Your task to perform on an android device: set default search engine in the chrome app Image 0: 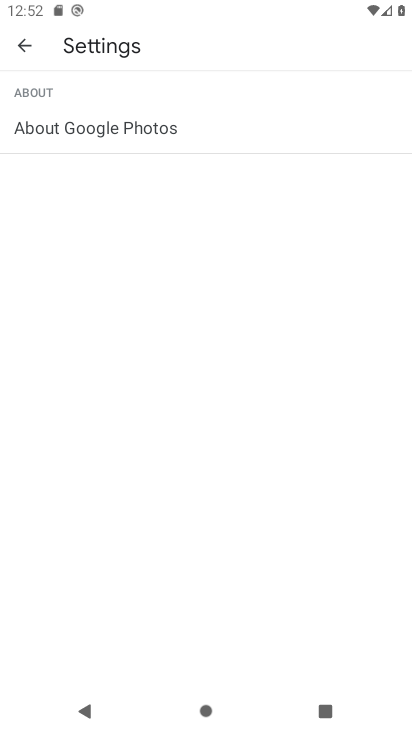
Step 0: click (233, 89)
Your task to perform on an android device: set default search engine in the chrome app Image 1: 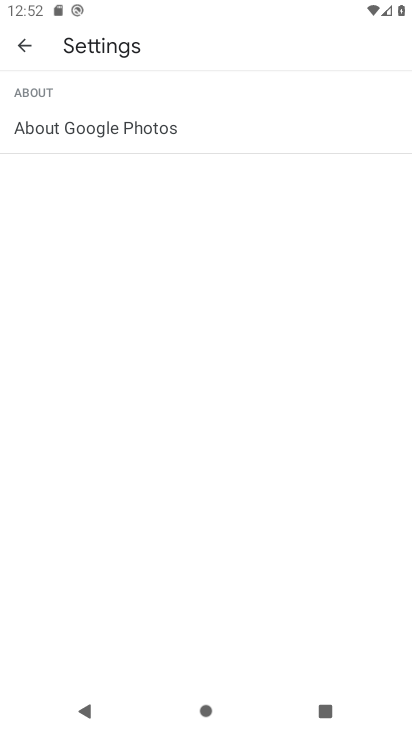
Step 1: press home button
Your task to perform on an android device: set default search engine in the chrome app Image 2: 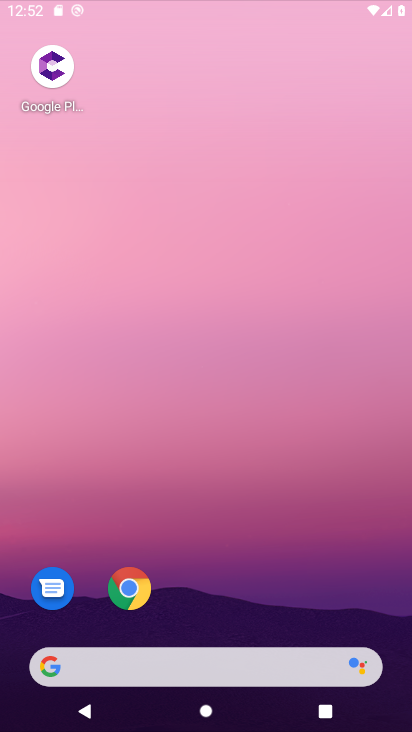
Step 2: drag from (213, 661) to (249, 122)
Your task to perform on an android device: set default search engine in the chrome app Image 3: 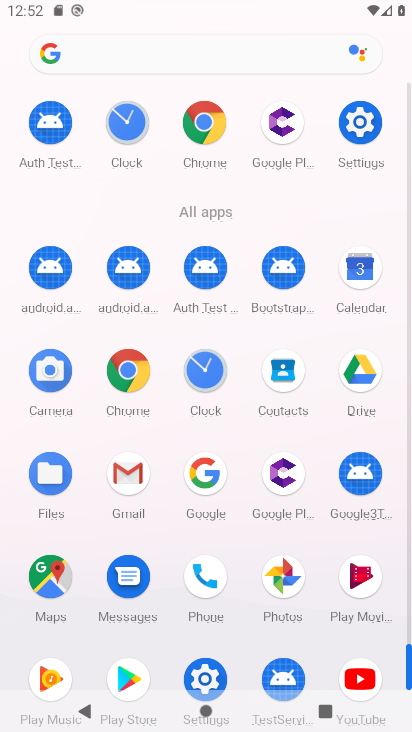
Step 3: click (143, 374)
Your task to perform on an android device: set default search engine in the chrome app Image 4: 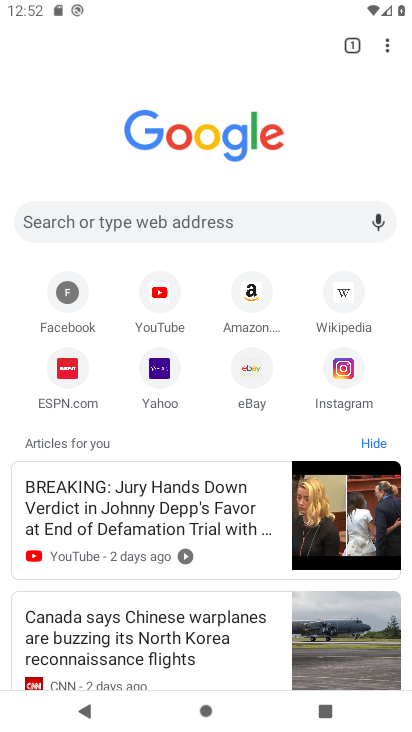
Step 4: click (396, 44)
Your task to perform on an android device: set default search engine in the chrome app Image 5: 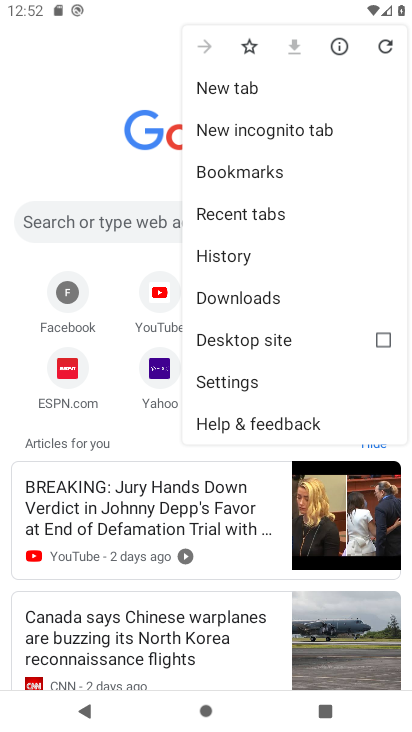
Step 5: click (258, 374)
Your task to perform on an android device: set default search engine in the chrome app Image 6: 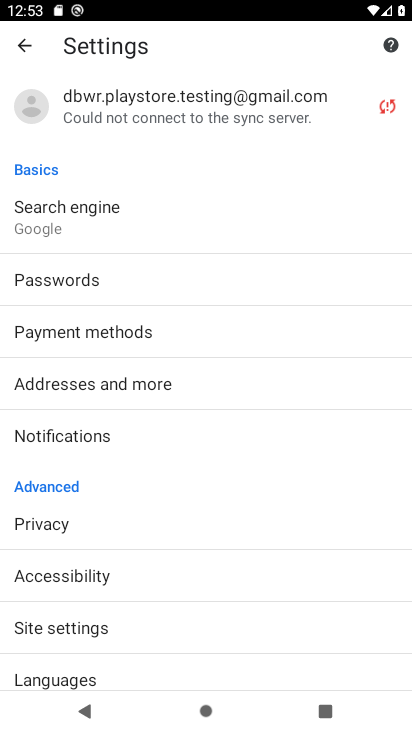
Step 6: click (73, 227)
Your task to perform on an android device: set default search engine in the chrome app Image 7: 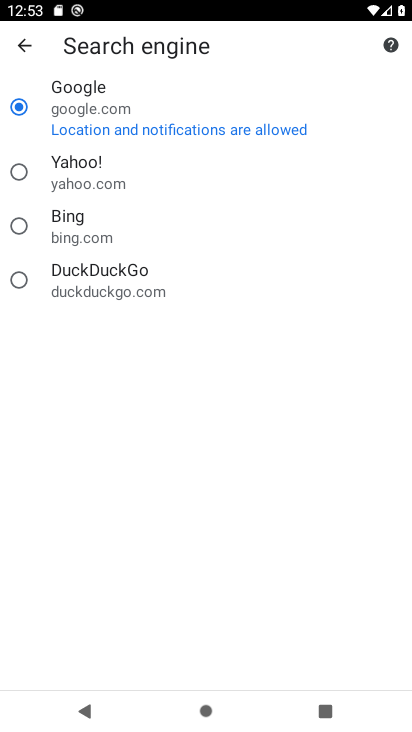
Step 7: task complete